Your task to perform on an android device: Open my contact list Image 0: 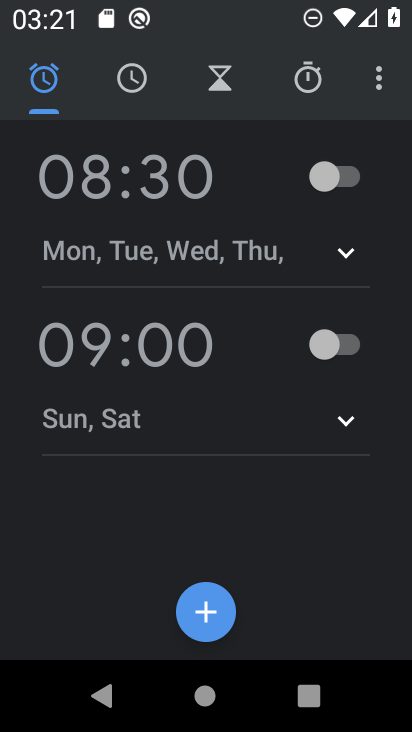
Step 0: press home button
Your task to perform on an android device: Open my contact list Image 1: 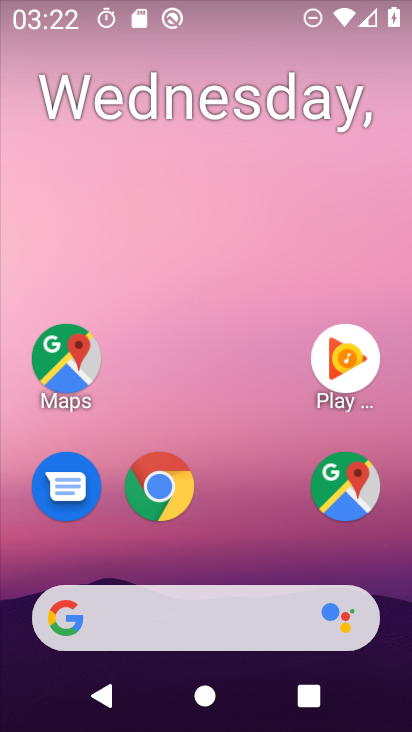
Step 1: drag from (249, 549) to (245, 235)
Your task to perform on an android device: Open my contact list Image 2: 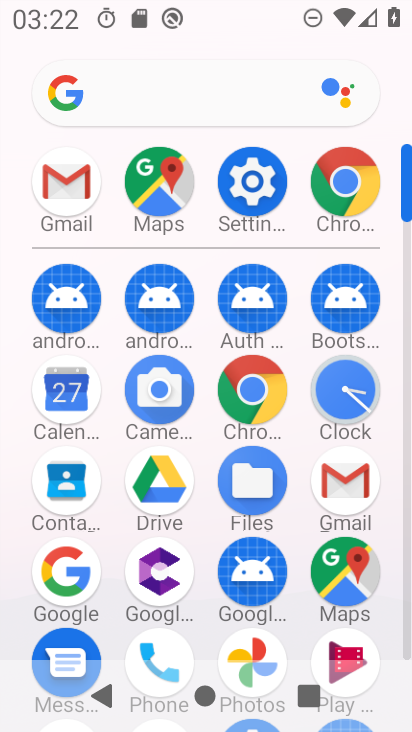
Step 2: click (68, 484)
Your task to perform on an android device: Open my contact list Image 3: 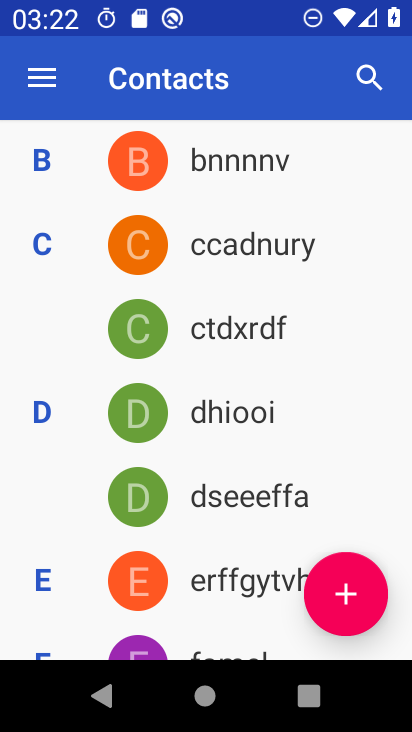
Step 3: task complete